Your task to perform on an android device: What is the recent news? Image 0: 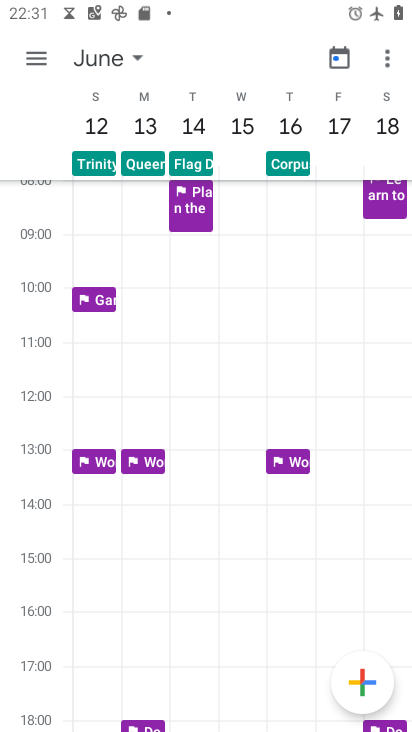
Step 0: press home button
Your task to perform on an android device: What is the recent news? Image 1: 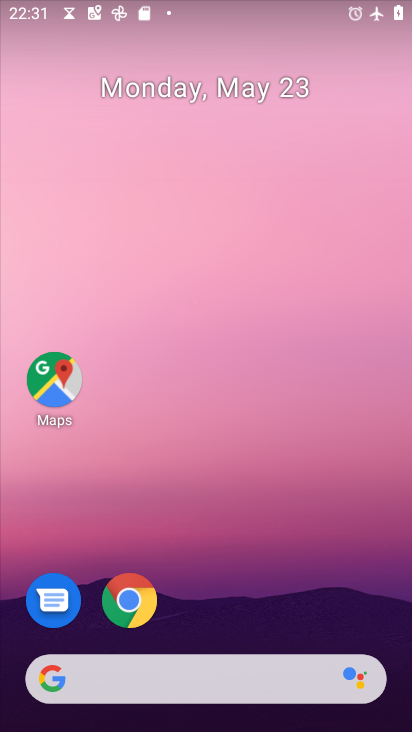
Step 1: task complete